Your task to perform on an android device: Check the news Image 0: 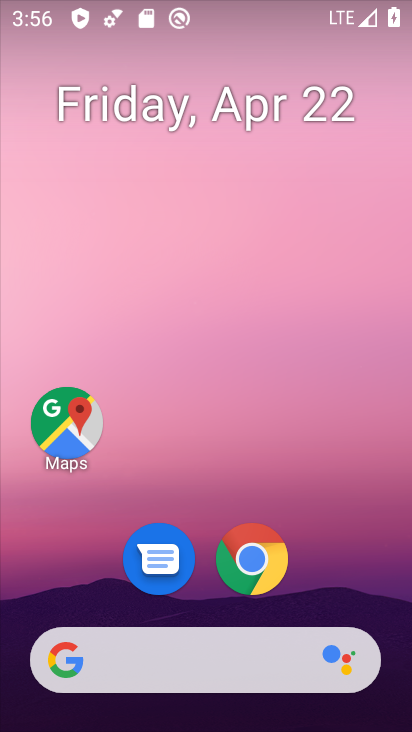
Step 0: drag from (323, 527) to (230, 7)
Your task to perform on an android device: Check the news Image 1: 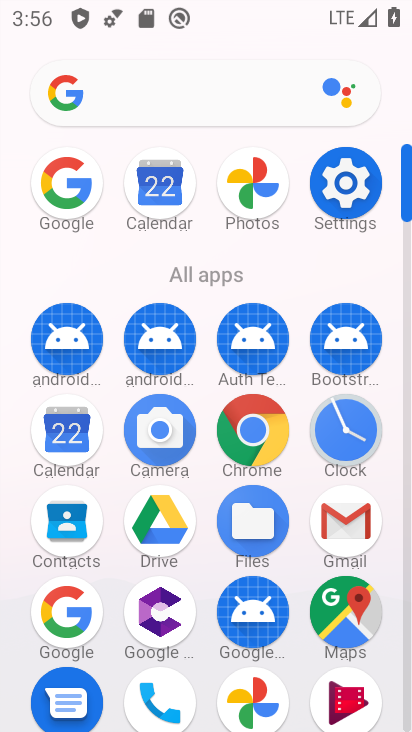
Step 1: click (351, 437)
Your task to perform on an android device: Check the news Image 2: 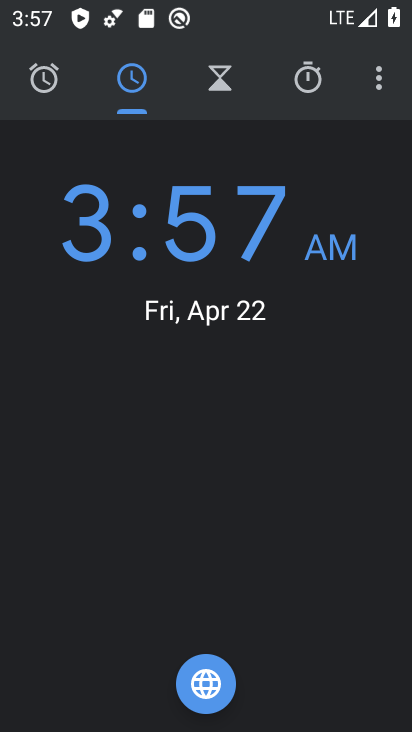
Step 2: press home button
Your task to perform on an android device: Check the news Image 3: 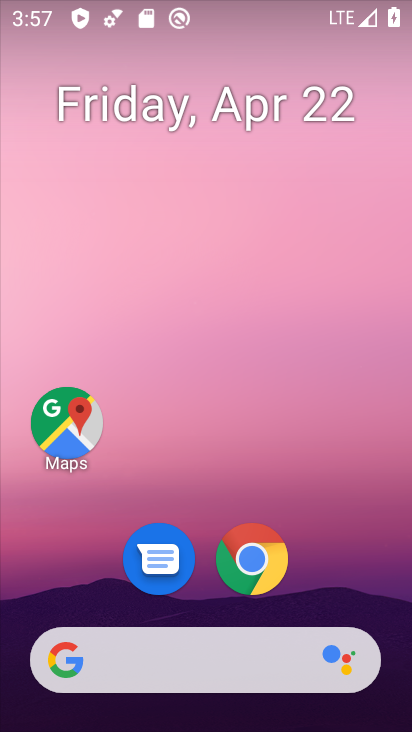
Step 3: drag from (324, 561) to (207, 58)
Your task to perform on an android device: Check the news Image 4: 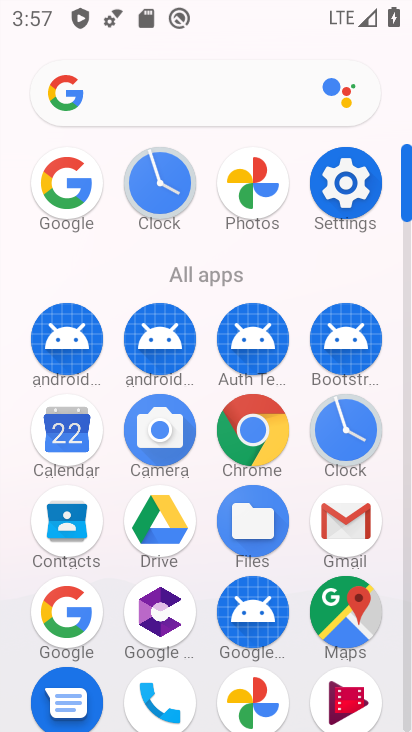
Step 4: click (71, 605)
Your task to perform on an android device: Check the news Image 5: 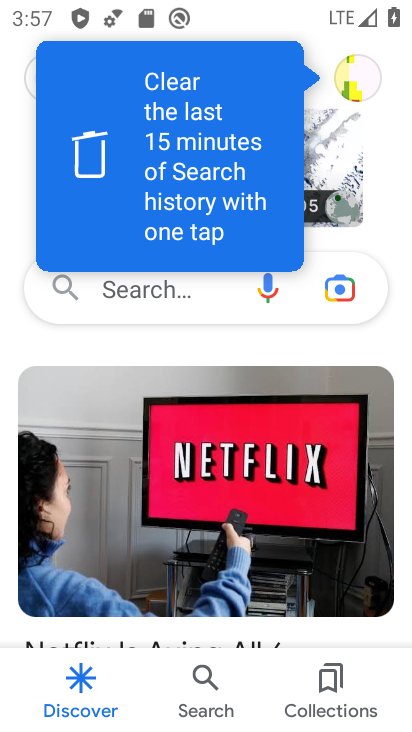
Step 5: task complete